Your task to perform on an android device: turn on wifi Image 0: 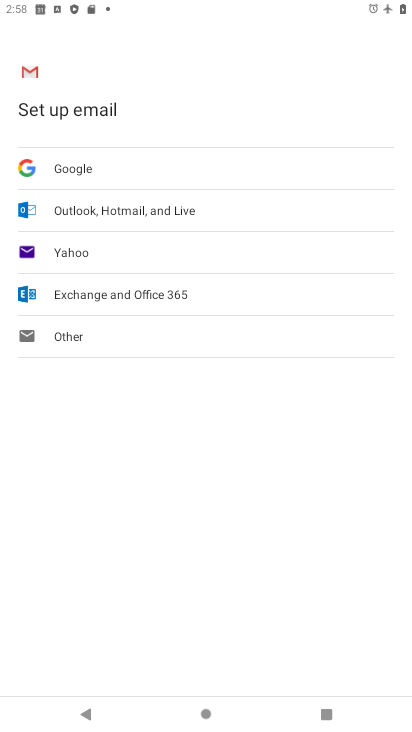
Step 0: press home button
Your task to perform on an android device: turn on wifi Image 1: 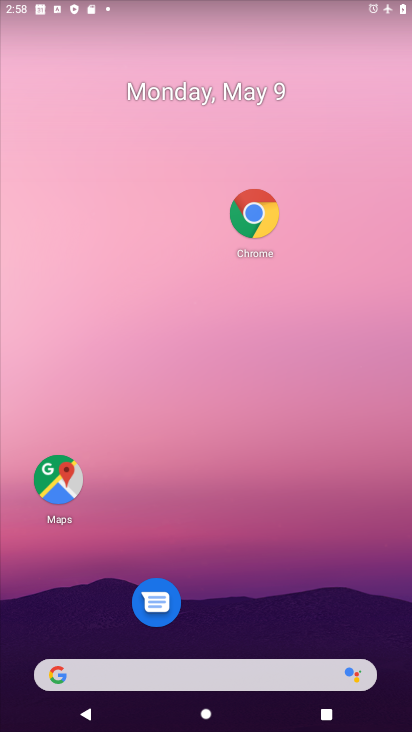
Step 1: drag from (299, 511) to (282, 452)
Your task to perform on an android device: turn on wifi Image 2: 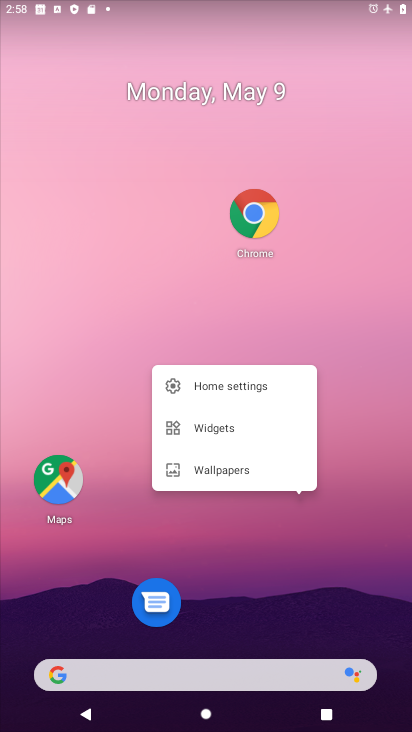
Step 2: click (244, 526)
Your task to perform on an android device: turn on wifi Image 3: 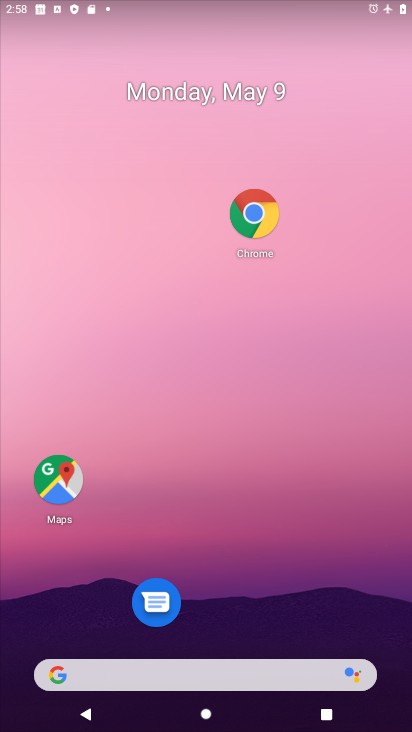
Step 3: drag from (237, 542) to (243, 366)
Your task to perform on an android device: turn on wifi Image 4: 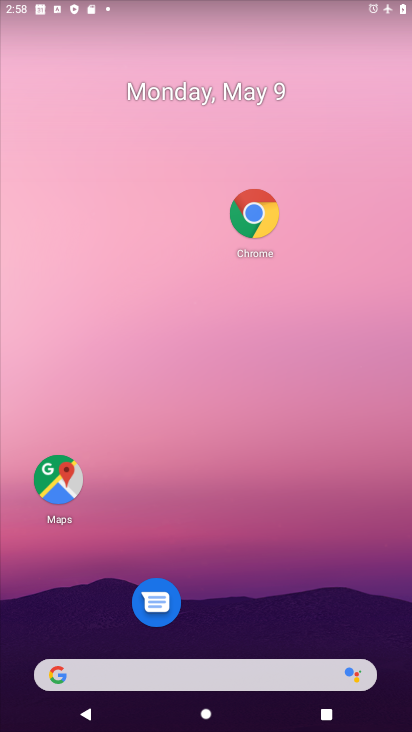
Step 4: drag from (259, 458) to (254, 54)
Your task to perform on an android device: turn on wifi Image 5: 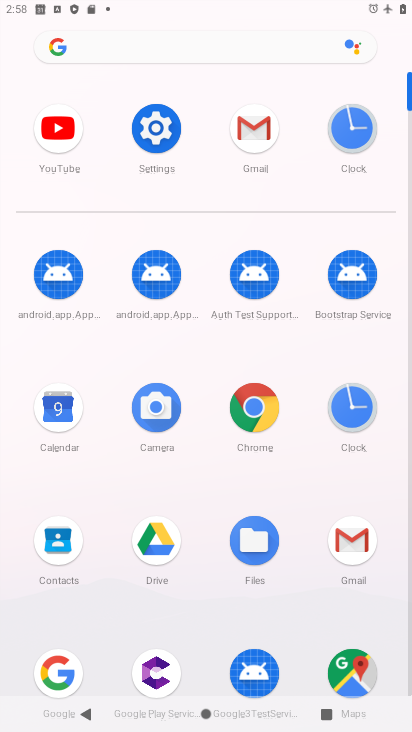
Step 5: click (175, 114)
Your task to perform on an android device: turn on wifi Image 6: 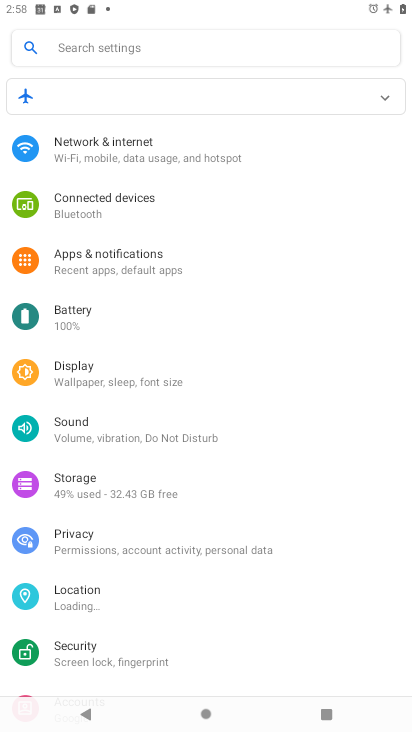
Step 6: click (152, 136)
Your task to perform on an android device: turn on wifi Image 7: 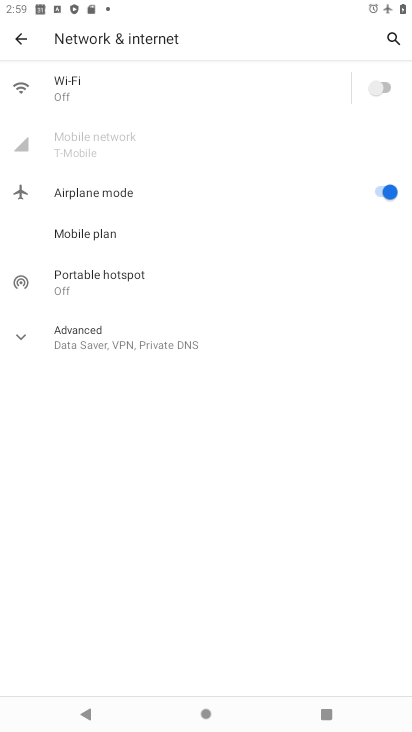
Step 7: click (395, 83)
Your task to perform on an android device: turn on wifi Image 8: 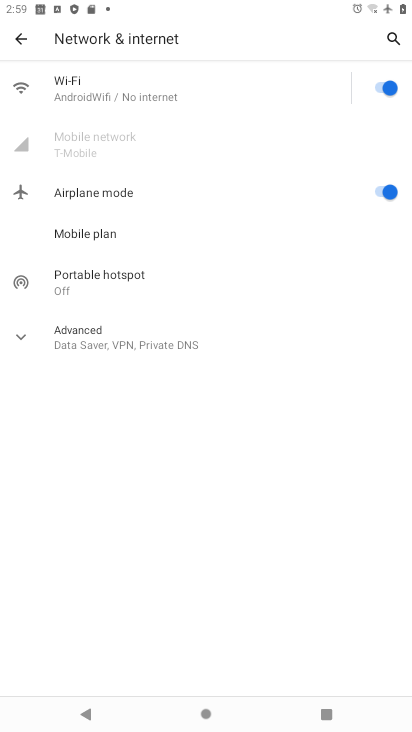
Step 8: task complete